Your task to perform on an android device: see tabs open on other devices in the chrome app Image 0: 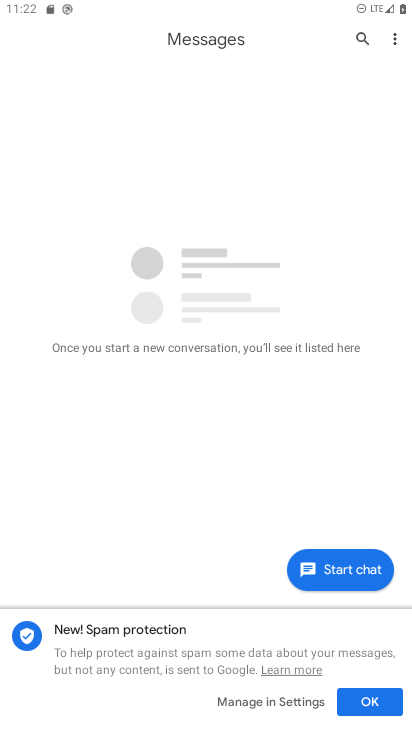
Step 0: press home button
Your task to perform on an android device: see tabs open on other devices in the chrome app Image 1: 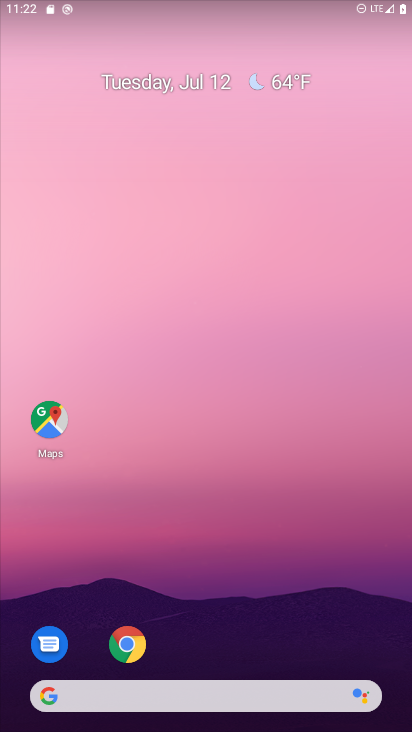
Step 1: drag from (228, 645) to (235, 219)
Your task to perform on an android device: see tabs open on other devices in the chrome app Image 2: 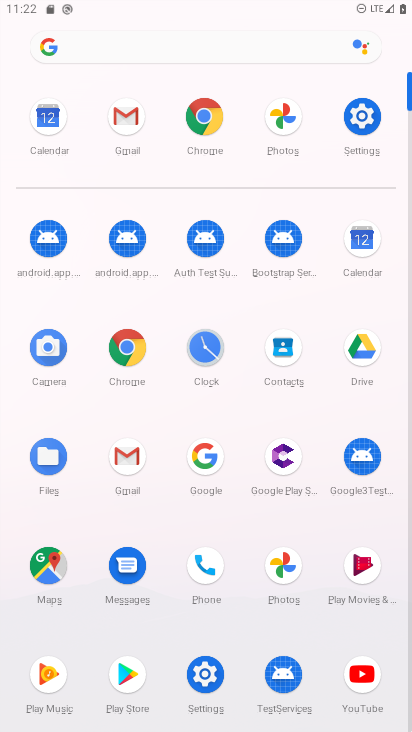
Step 2: click (196, 149)
Your task to perform on an android device: see tabs open on other devices in the chrome app Image 3: 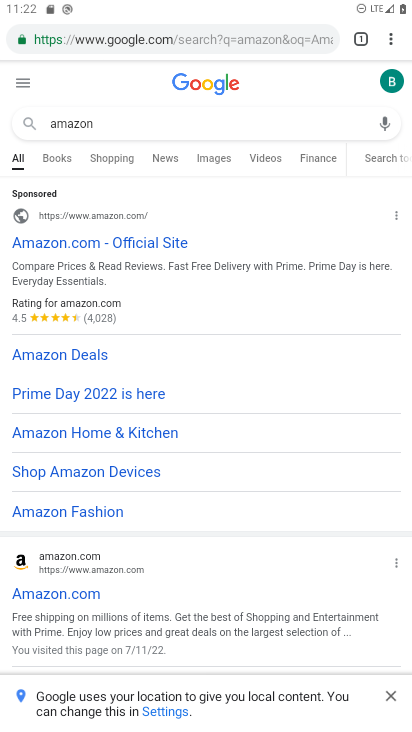
Step 3: click (392, 41)
Your task to perform on an android device: see tabs open on other devices in the chrome app Image 4: 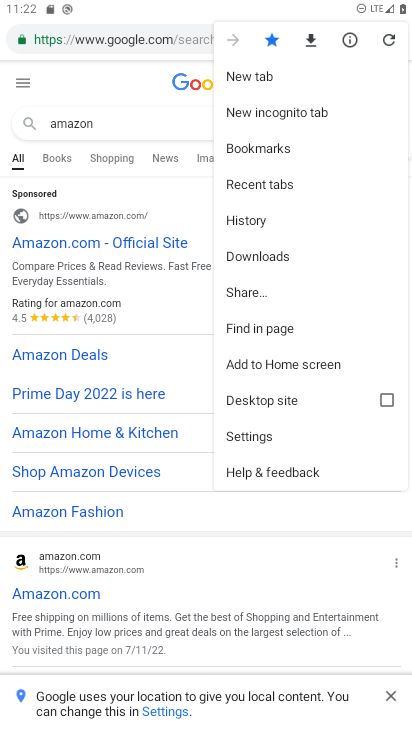
Step 4: click (301, 196)
Your task to perform on an android device: see tabs open on other devices in the chrome app Image 5: 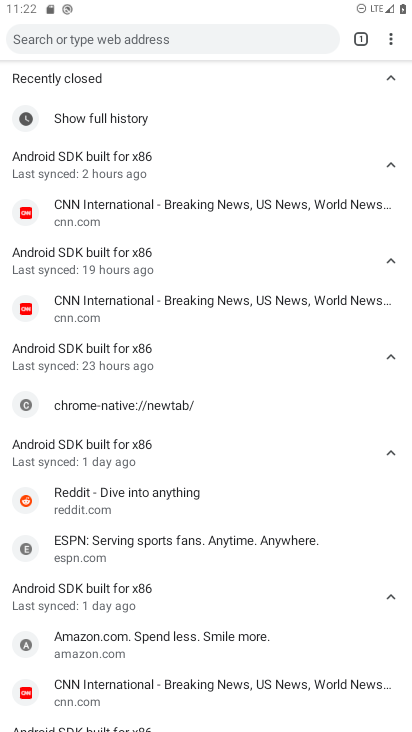
Step 5: task complete